Your task to perform on an android device: Search for a new eyeliner Image 0: 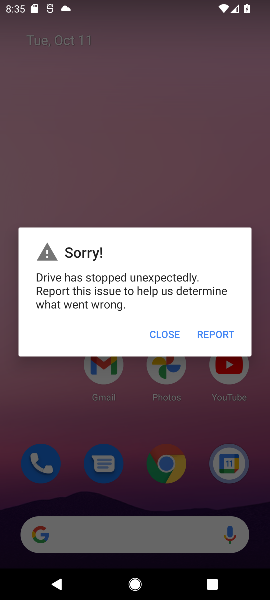
Step 0: drag from (182, 559) to (162, 158)
Your task to perform on an android device: Search for a new eyeliner Image 1: 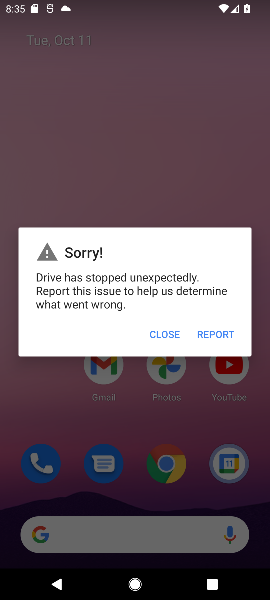
Step 1: click (164, 338)
Your task to perform on an android device: Search for a new eyeliner Image 2: 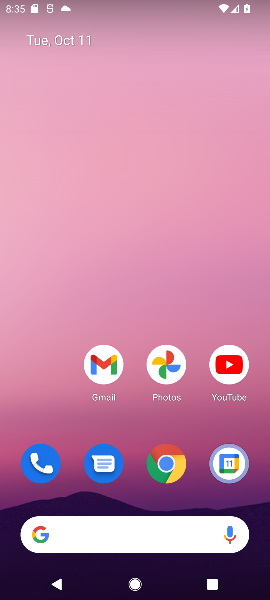
Step 2: drag from (121, 486) to (114, 151)
Your task to perform on an android device: Search for a new eyeliner Image 3: 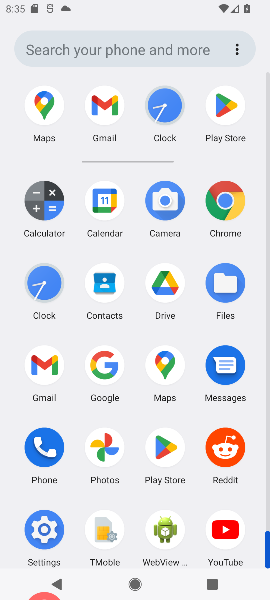
Step 3: click (100, 359)
Your task to perform on an android device: Search for a new eyeliner Image 4: 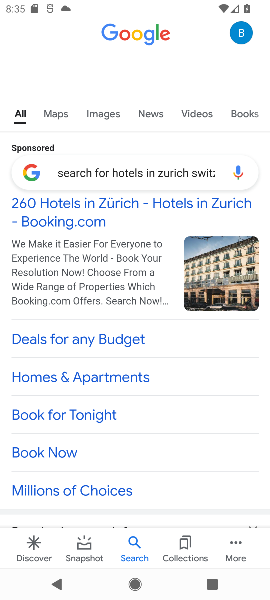
Step 4: click (149, 167)
Your task to perform on an android device: Search for a new eyeliner Image 5: 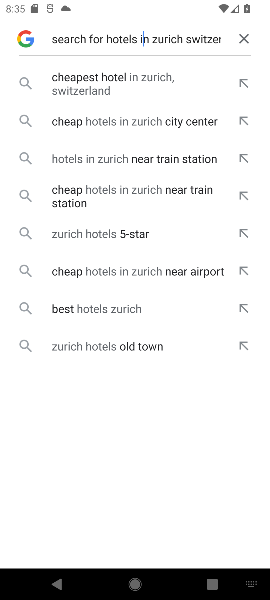
Step 5: click (252, 41)
Your task to perform on an android device: Search for a new eyeliner Image 6: 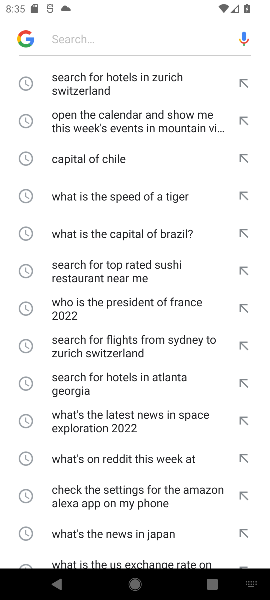
Step 6: click (149, 30)
Your task to perform on an android device: Search for a new eyeliner Image 7: 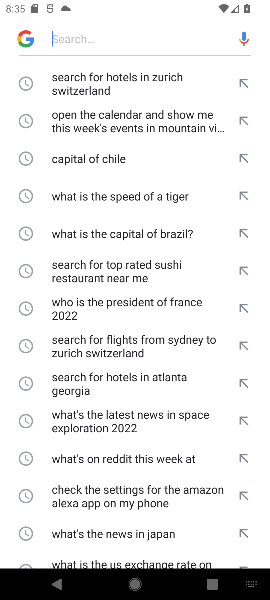
Step 7: type "Search for a new eyeliner "
Your task to perform on an android device: Search for a new eyeliner Image 8: 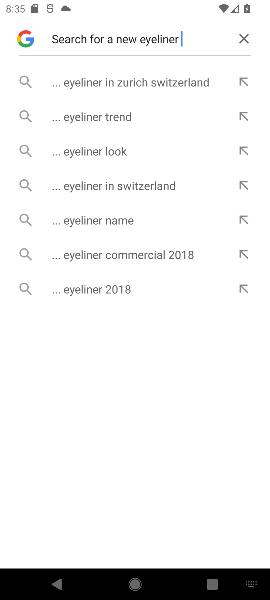
Step 8: click (111, 145)
Your task to perform on an android device: Search for a new eyeliner Image 9: 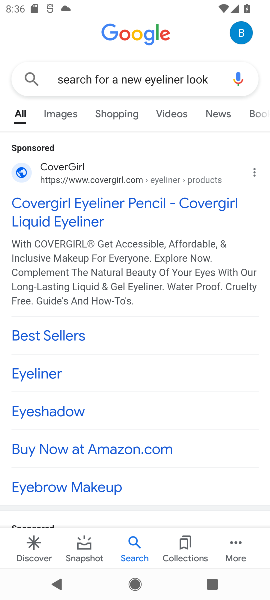
Step 9: click (66, 376)
Your task to perform on an android device: Search for a new eyeliner Image 10: 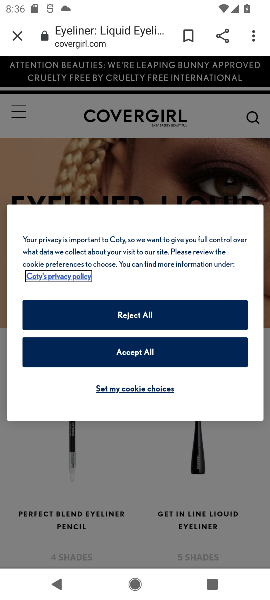
Step 10: click (172, 358)
Your task to perform on an android device: Search for a new eyeliner Image 11: 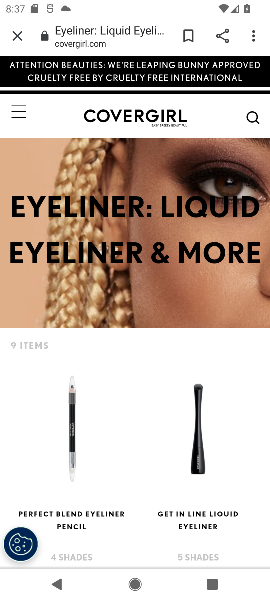
Step 11: task complete